Your task to perform on an android device: Open calendar and show me the fourth week of next month Image 0: 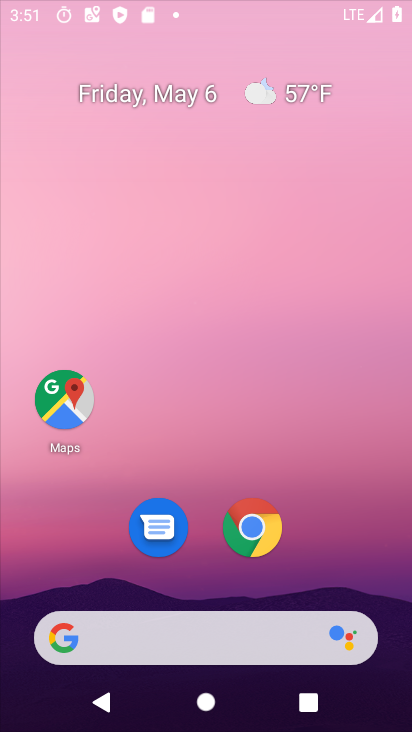
Step 0: drag from (311, 574) to (311, 185)
Your task to perform on an android device: Open calendar and show me the fourth week of next month Image 1: 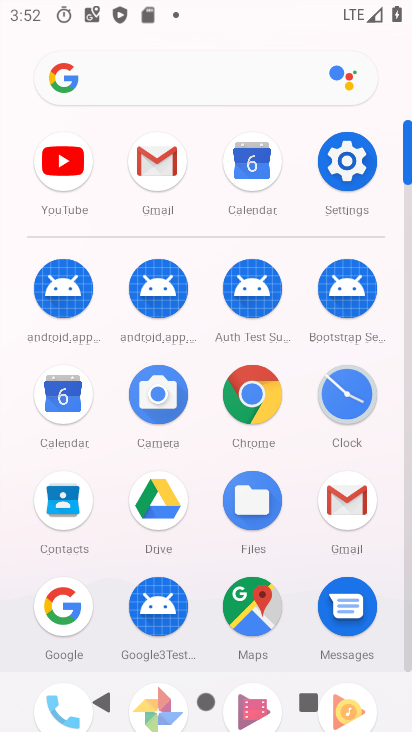
Step 1: click (67, 426)
Your task to perform on an android device: Open calendar and show me the fourth week of next month Image 2: 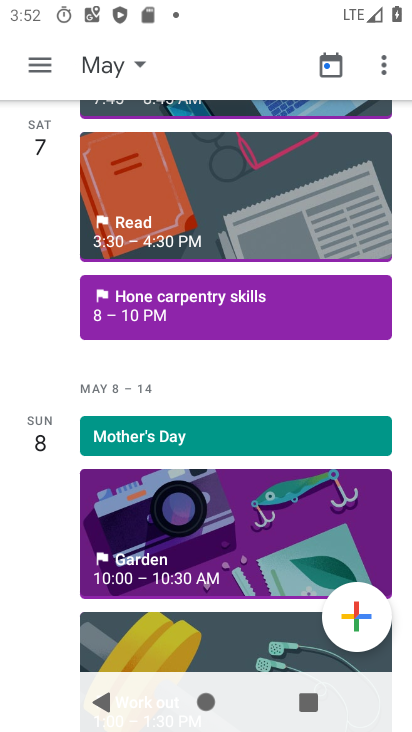
Step 2: click (94, 71)
Your task to perform on an android device: Open calendar and show me the fourth week of next month Image 3: 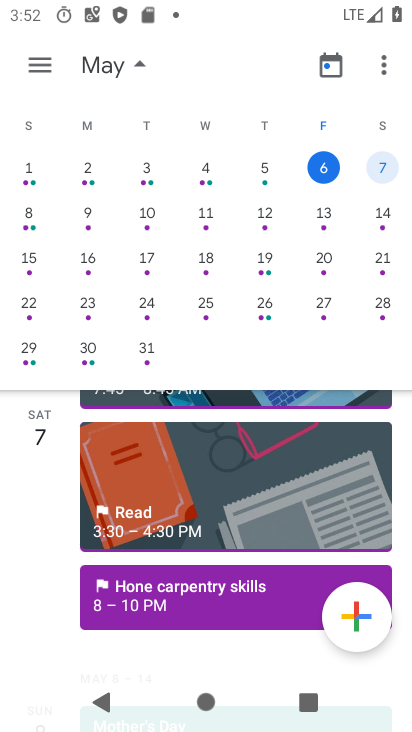
Step 3: click (49, 63)
Your task to perform on an android device: Open calendar and show me the fourth week of next month Image 4: 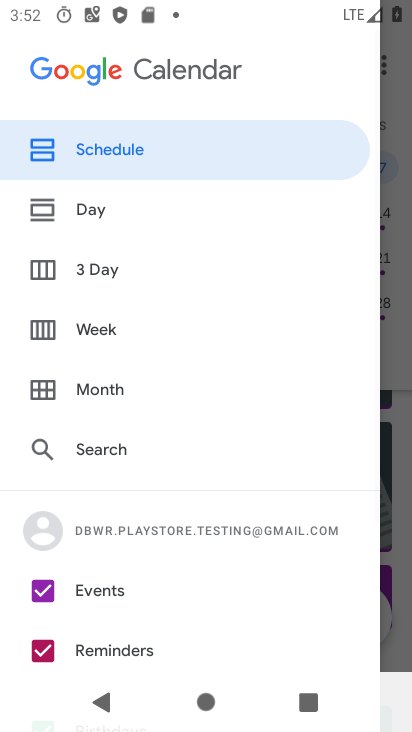
Step 4: click (98, 322)
Your task to perform on an android device: Open calendar and show me the fourth week of next month Image 5: 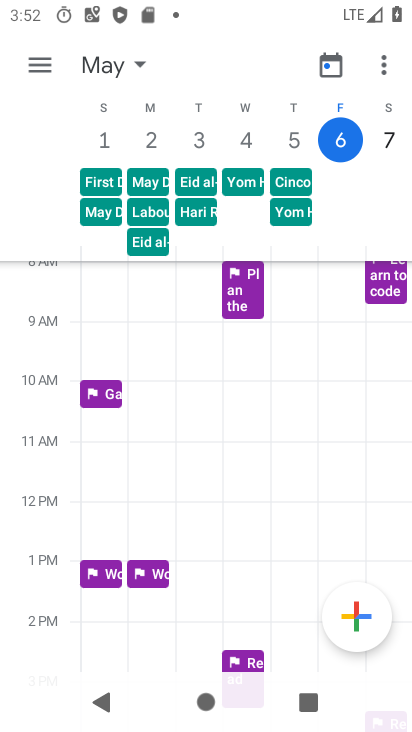
Step 5: click (107, 68)
Your task to perform on an android device: Open calendar and show me the fourth week of next month Image 6: 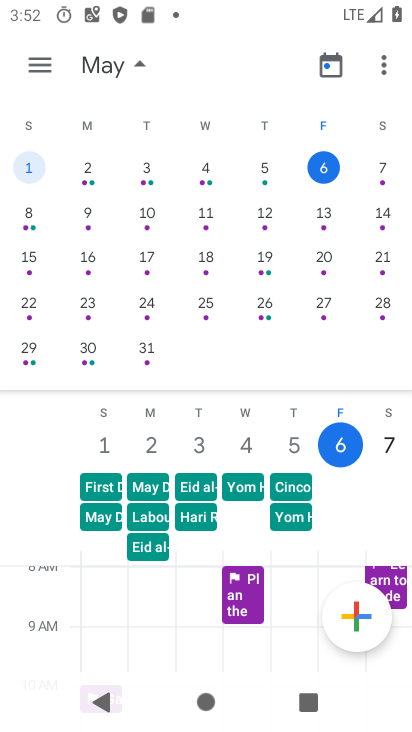
Step 6: drag from (289, 229) to (97, 252)
Your task to perform on an android device: Open calendar and show me the fourth week of next month Image 7: 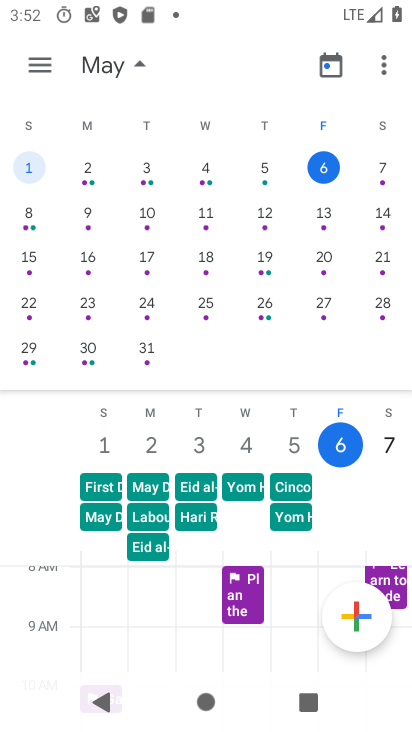
Step 7: click (30, 305)
Your task to perform on an android device: Open calendar and show me the fourth week of next month Image 8: 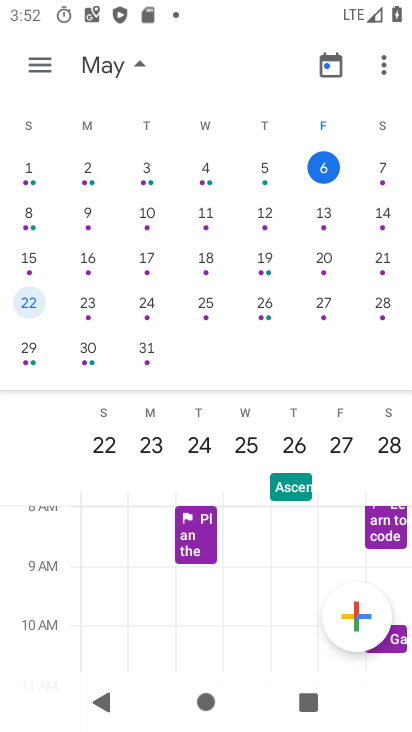
Step 8: task complete